Your task to perform on an android device: make emails show in primary in the gmail app Image 0: 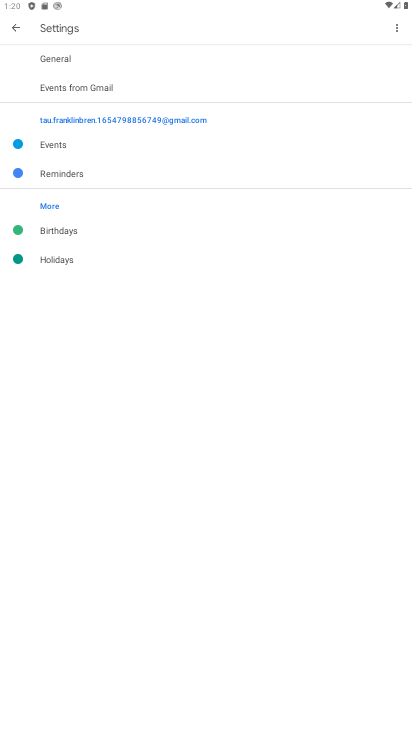
Step 0: press home button
Your task to perform on an android device: make emails show in primary in the gmail app Image 1: 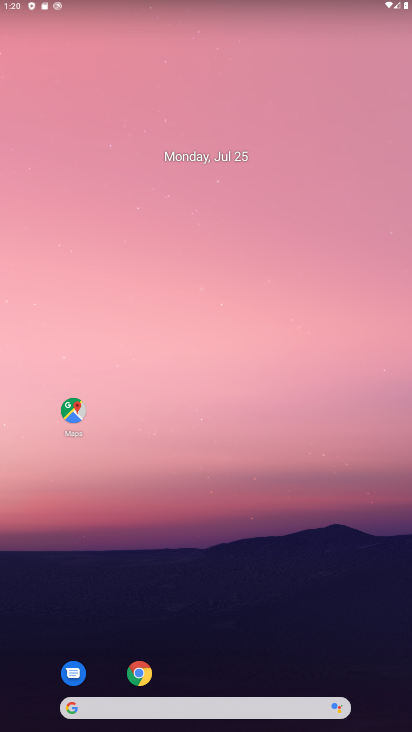
Step 1: drag from (192, 642) to (268, 116)
Your task to perform on an android device: make emails show in primary in the gmail app Image 2: 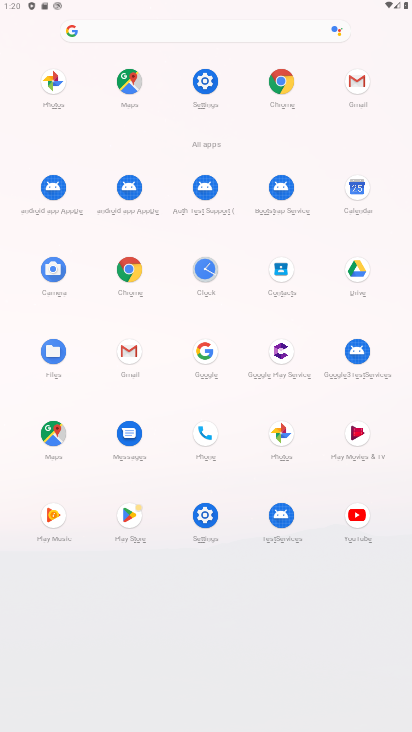
Step 2: click (358, 89)
Your task to perform on an android device: make emails show in primary in the gmail app Image 3: 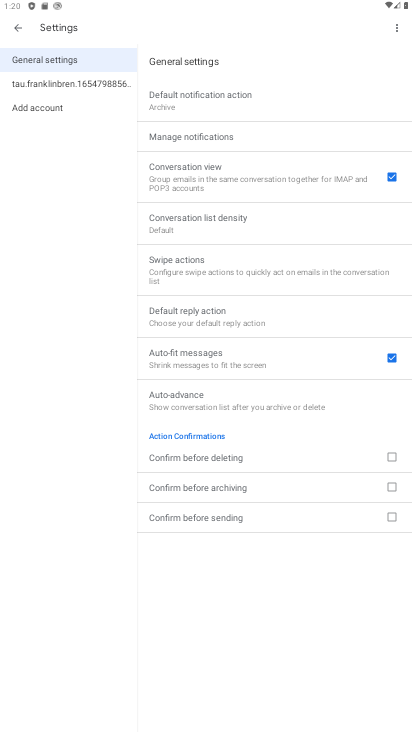
Step 3: click (20, 30)
Your task to perform on an android device: make emails show in primary in the gmail app Image 4: 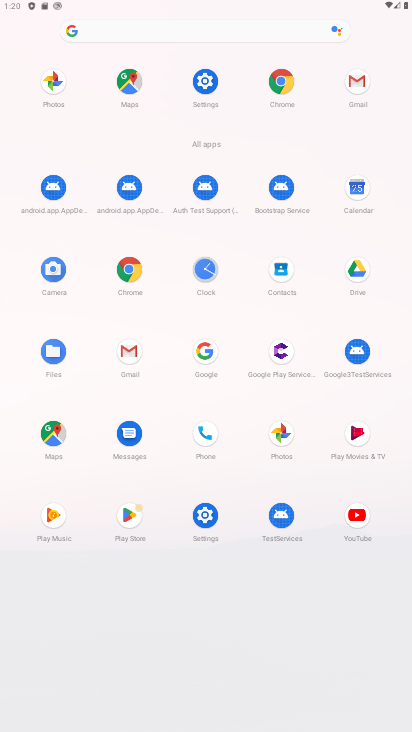
Step 4: click (347, 77)
Your task to perform on an android device: make emails show in primary in the gmail app Image 5: 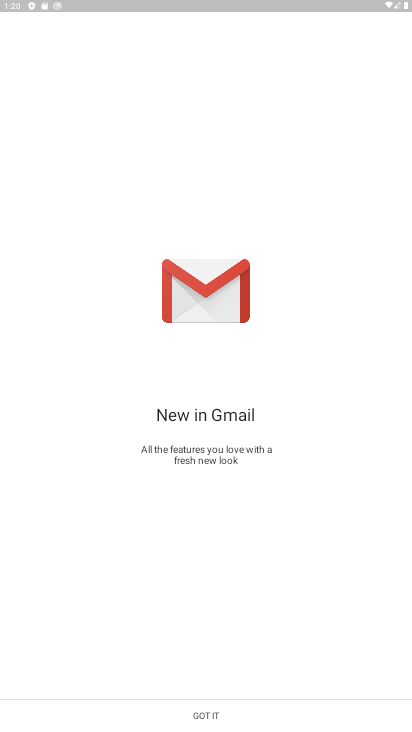
Step 5: click (198, 713)
Your task to perform on an android device: make emails show in primary in the gmail app Image 6: 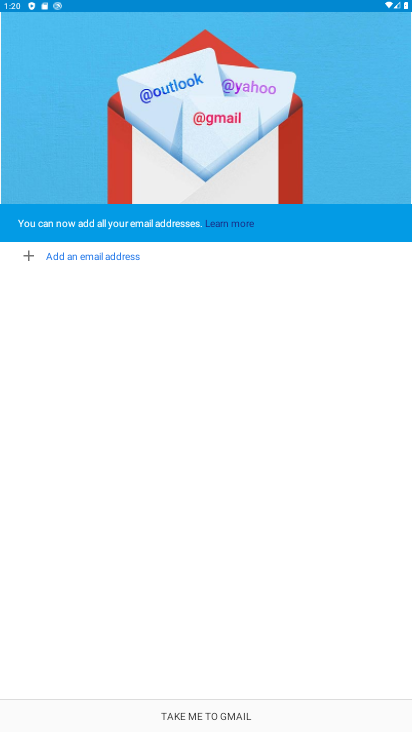
Step 6: click (198, 713)
Your task to perform on an android device: make emails show in primary in the gmail app Image 7: 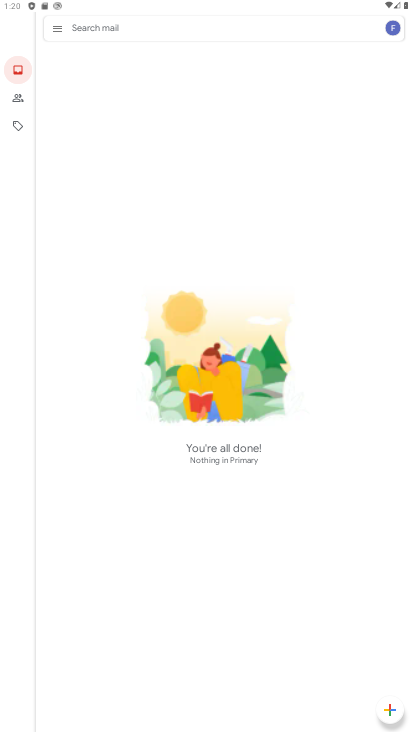
Step 7: click (57, 27)
Your task to perform on an android device: make emails show in primary in the gmail app Image 8: 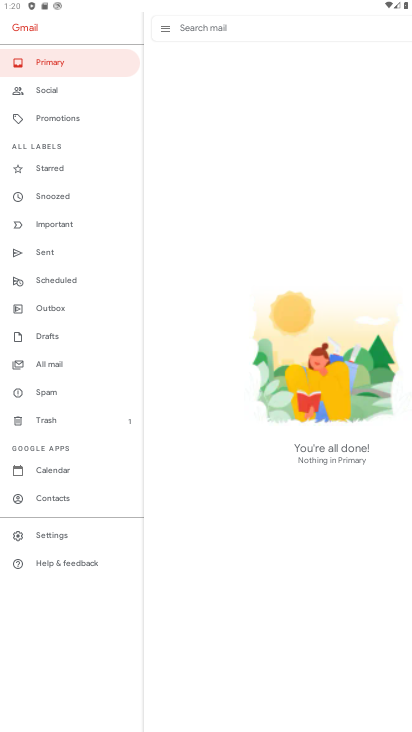
Step 8: task complete